Your task to perform on an android device: turn on data saver in the chrome app Image 0: 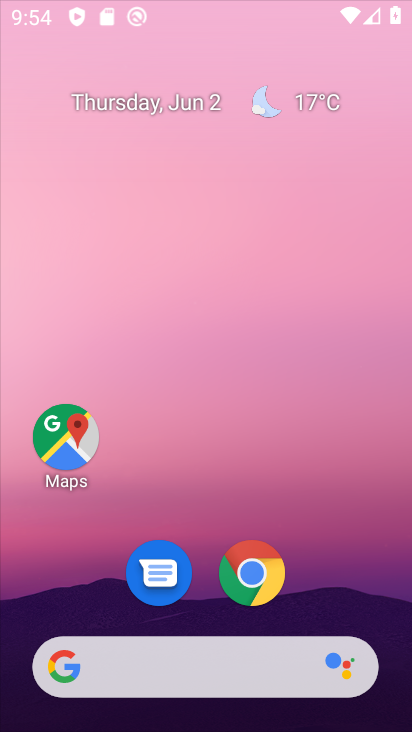
Step 0: drag from (387, 359) to (410, 15)
Your task to perform on an android device: turn on data saver in the chrome app Image 1: 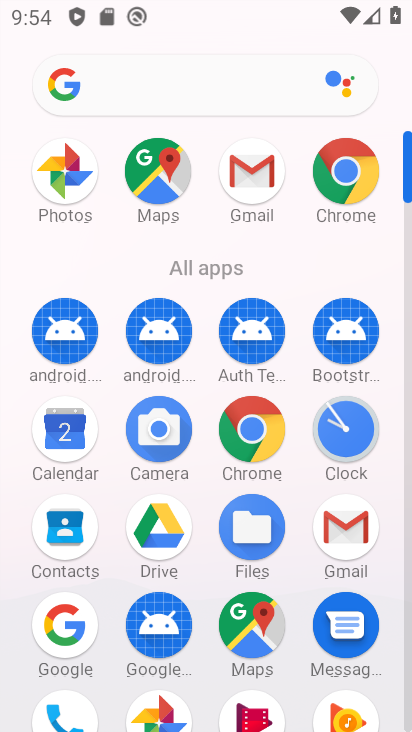
Step 1: click (346, 155)
Your task to perform on an android device: turn on data saver in the chrome app Image 2: 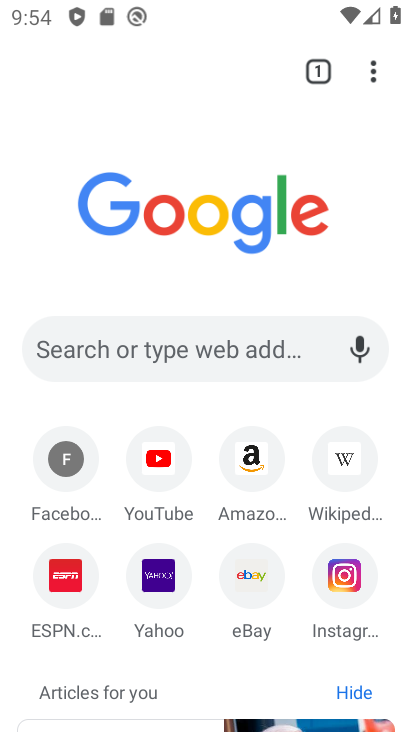
Step 2: drag from (368, 89) to (133, 595)
Your task to perform on an android device: turn on data saver in the chrome app Image 3: 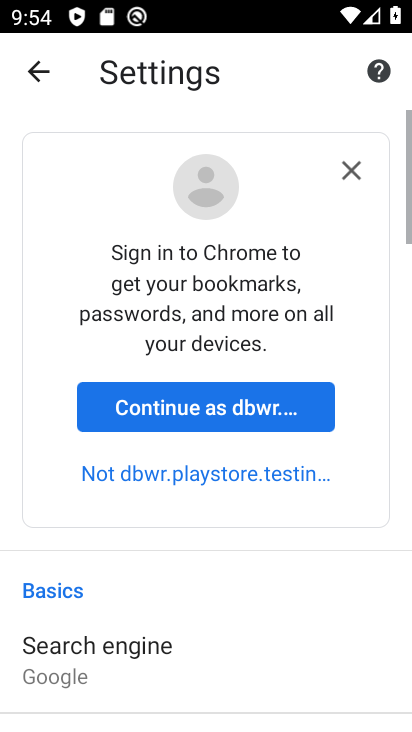
Step 3: drag from (139, 572) to (241, 123)
Your task to perform on an android device: turn on data saver in the chrome app Image 4: 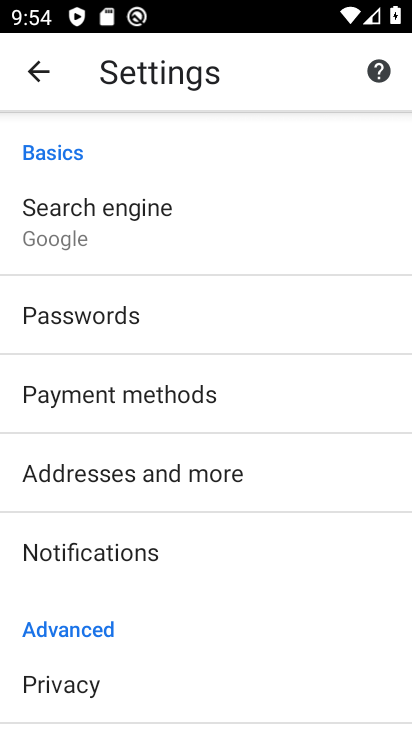
Step 4: drag from (166, 527) to (255, 39)
Your task to perform on an android device: turn on data saver in the chrome app Image 5: 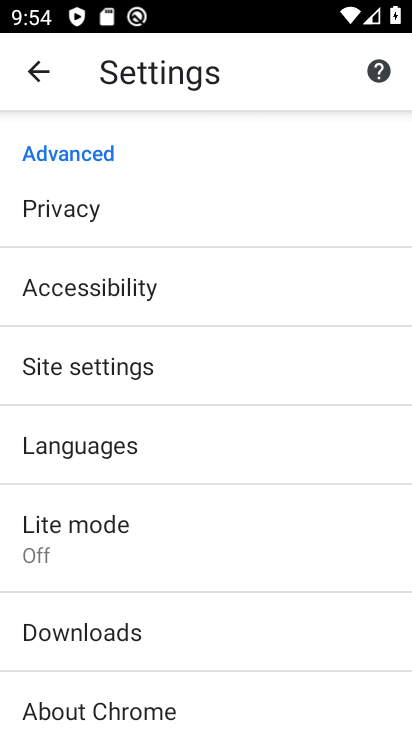
Step 5: click (148, 548)
Your task to perform on an android device: turn on data saver in the chrome app Image 6: 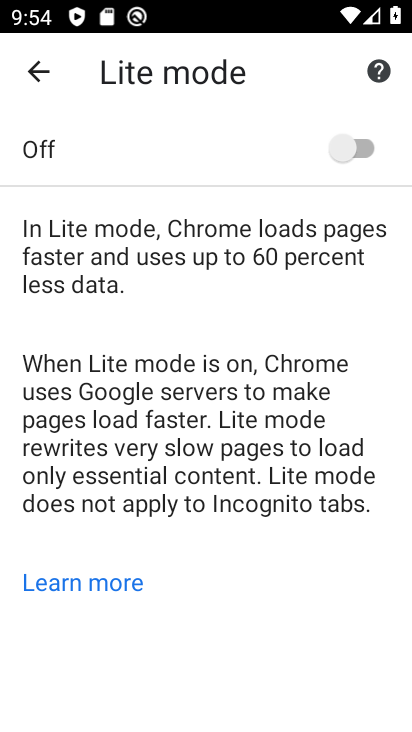
Step 6: click (366, 149)
Your task to perform on an android device: turn on data saver in the chrome app Image 7: 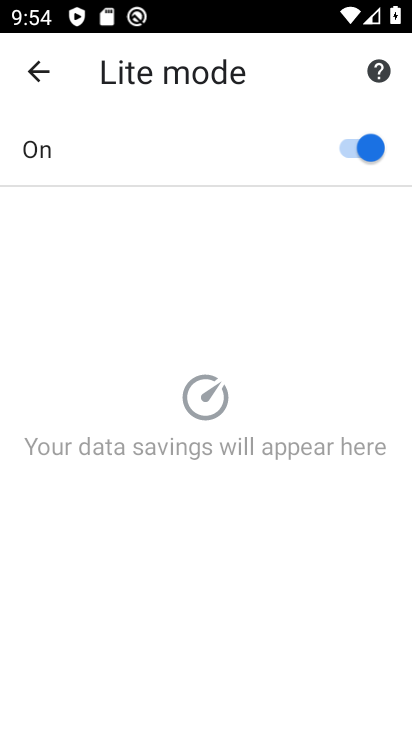
Step 7: task complete